Your task to perform on an android device: set the timer Image 0: 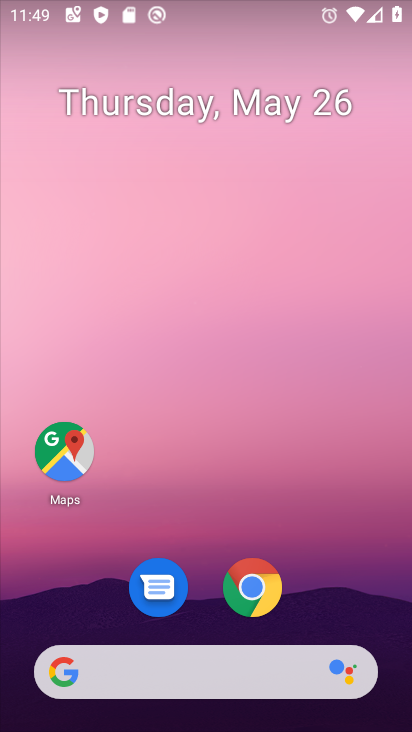
Step 0: drag from (279, 683) to (320, 22)
Your task to perform on an android device: set the timer Image 1: 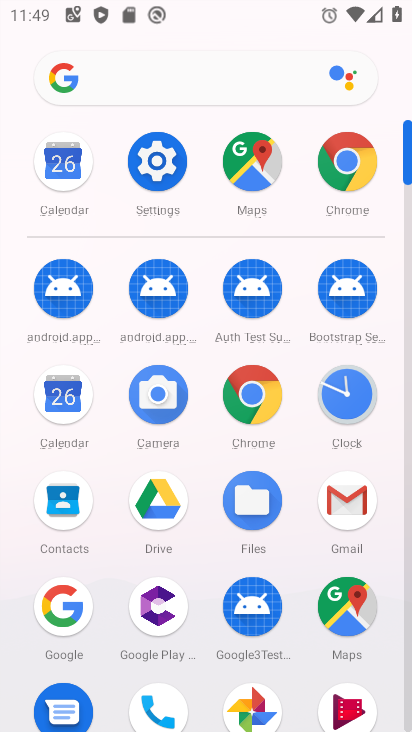
Step 1: click (314, 391)
Your task to perform on an android device: set the timer Image 2: 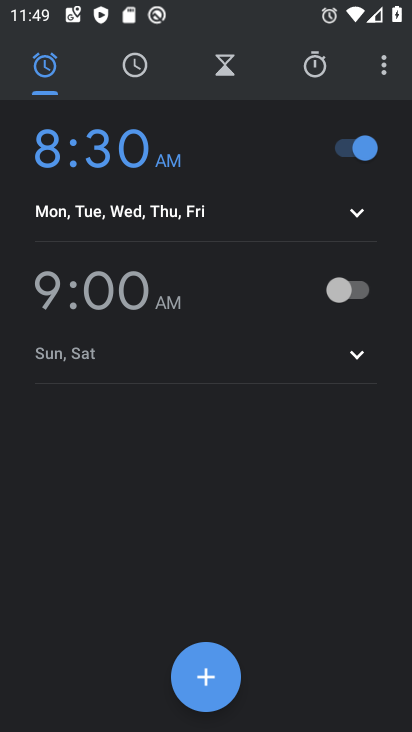
Step 2: click (213, 66)
Your task to perform on an android device: set the timer Image 3: 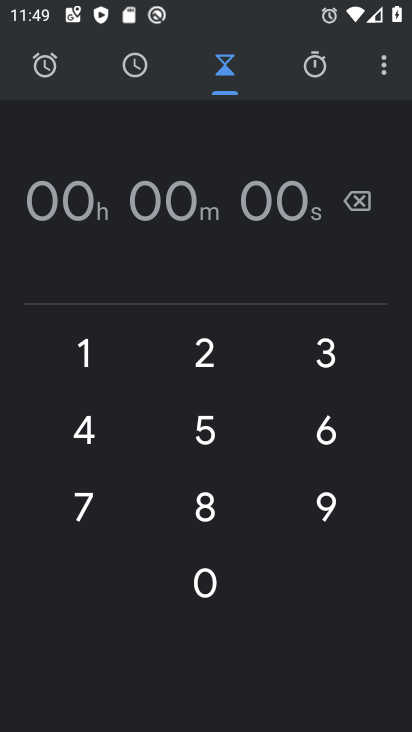
Step 3: click (233, 394)
Your task to perform on an android device: set the timer Image 4: 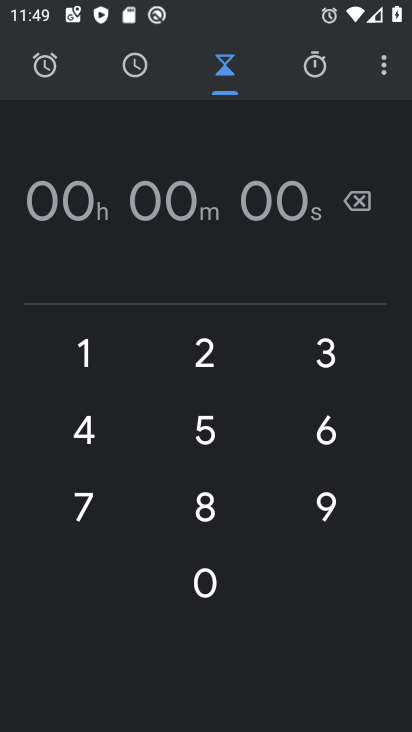
Step 4: click (191, 456)
Your task to perform on an android device: set the timer Image 5: 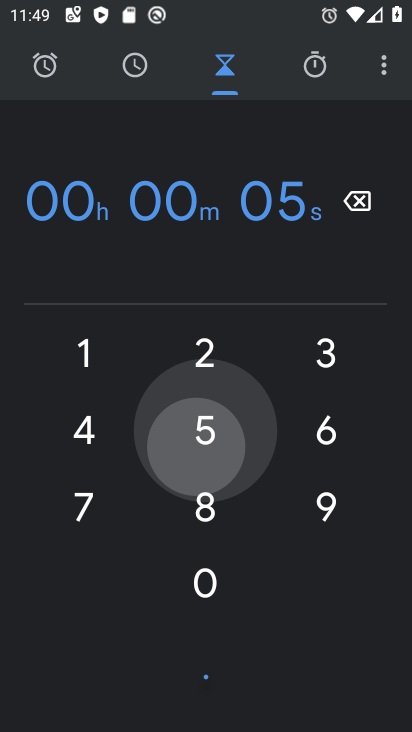
Step 5: click (357, 415)
Your task to perform on an android device: set the timer Image 6: 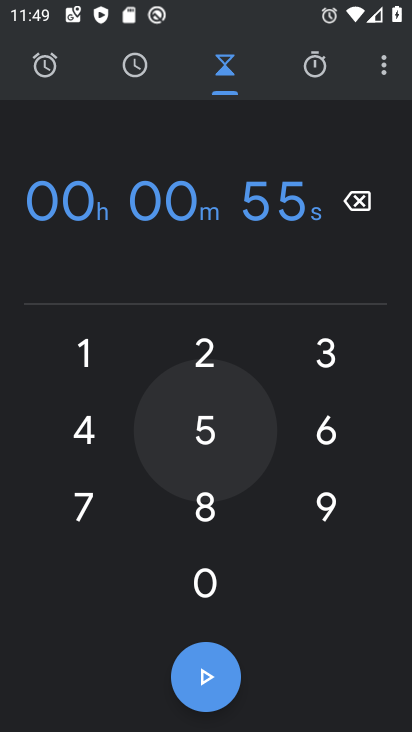
Step 6: click (355, 417)
Your task to perform on an android device: set the timer Image 7: 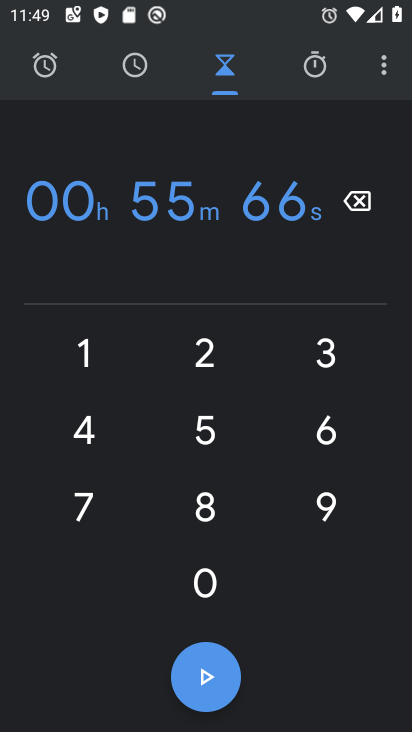
Step 7: task complete